Your task to perform on an android device: See recent photos Image 0: 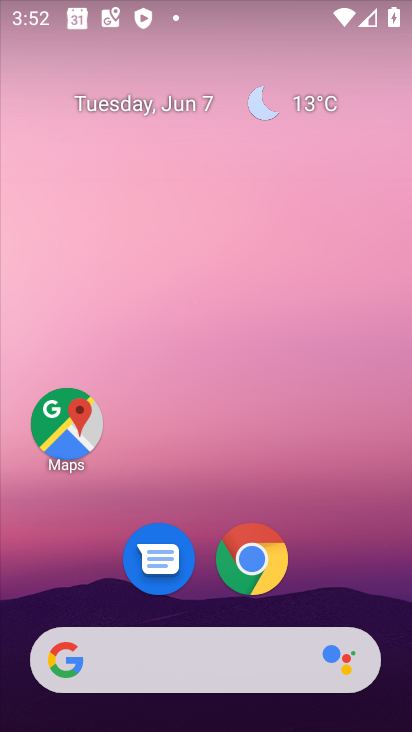
Step 0: drag from (354, 559) to (242, 111)
Your task to perform on an android device: See recent photos Image 1: 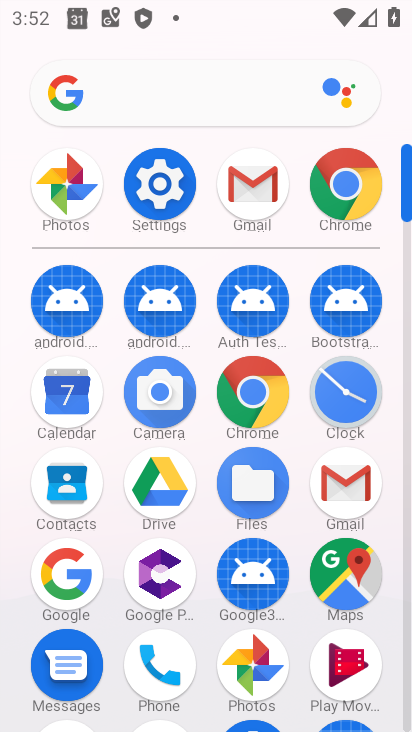
Step 1: click (67, 184)
Your task to perform on an android device: See recent photos Image 2: 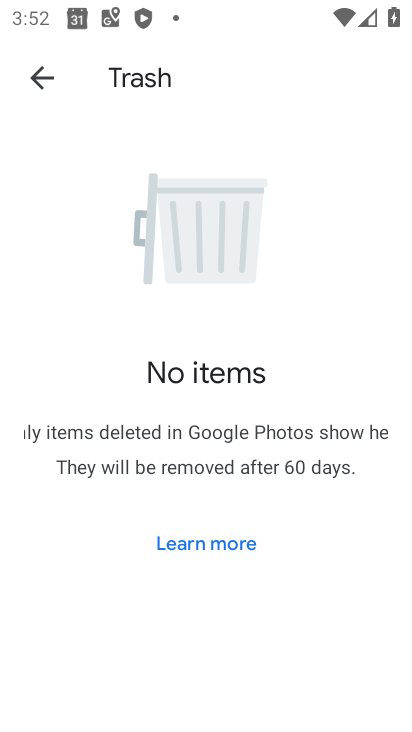
Step 2: press back button
Your task to perform on an android device: See recent photos Image 3: 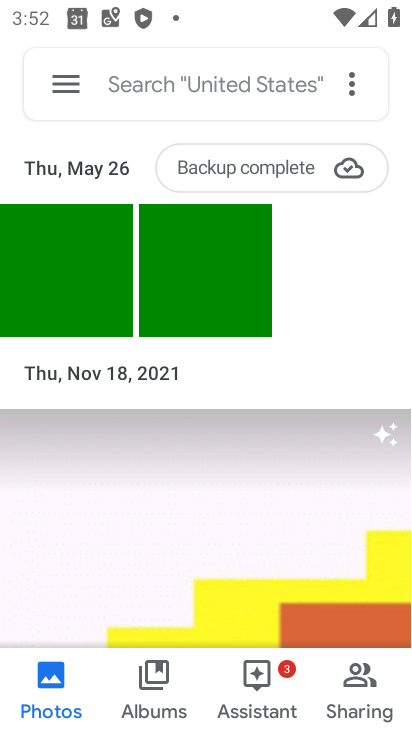
Step 3: click (67, 294)
Your task to perform on an android device: See recent photos Image 4: 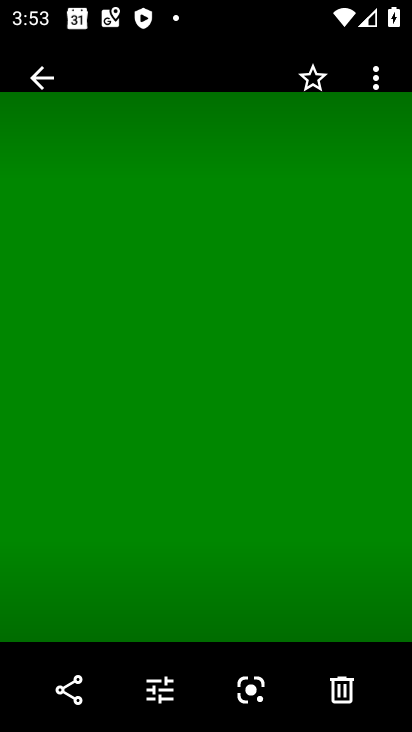
Step 4: task complete